Your task to perform on an android device: What is the news today? Image 0: 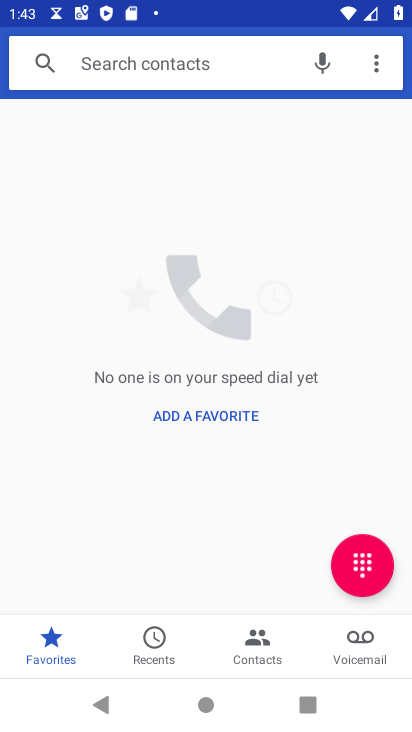
Step 0: press home button
Your task to perform on an android device: What is the news today? Image 1: 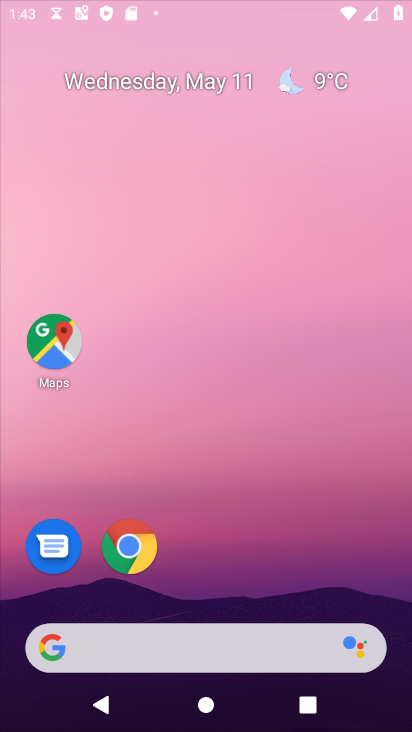
Step 1: drag from (297, 613) to (240, 25)
Your task to perform on an android device: What is the news today? Image 2: 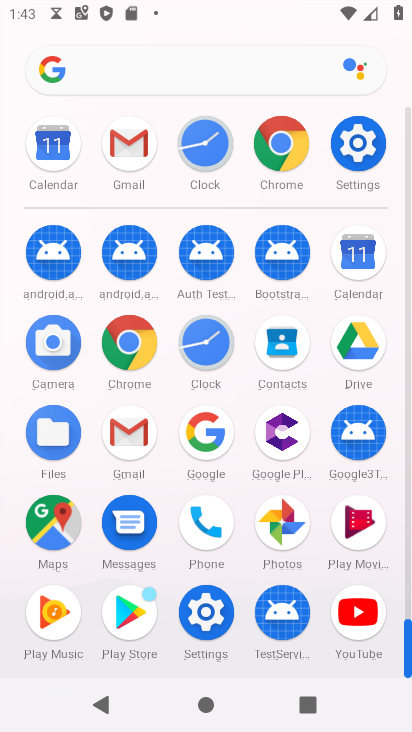
Step 2: click (135, 355)
Your task to perform on an android device: What is the news today? Image 3: 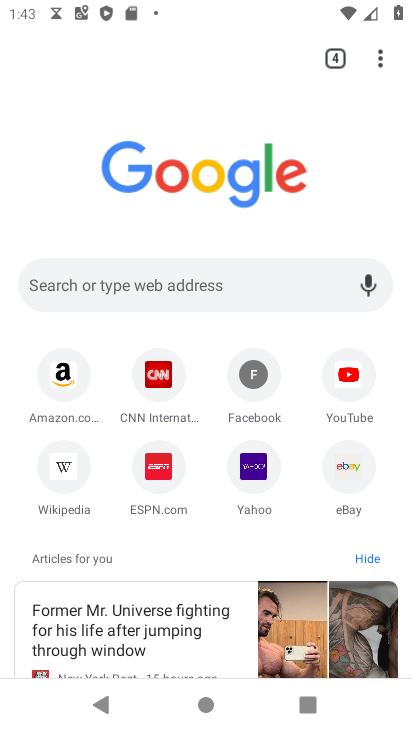
Step 3: click (217, 284)
Your task to perform on an android device: What is the news today? Image 4: 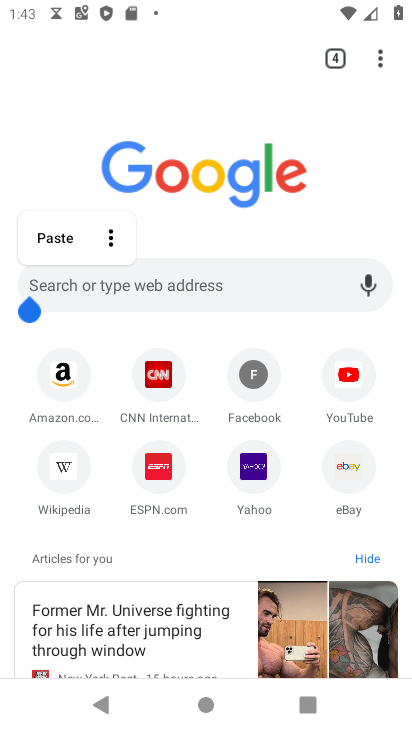
Step 4: click (217, 284)
Your task to perform on an android device: What is the news today? Image 5: 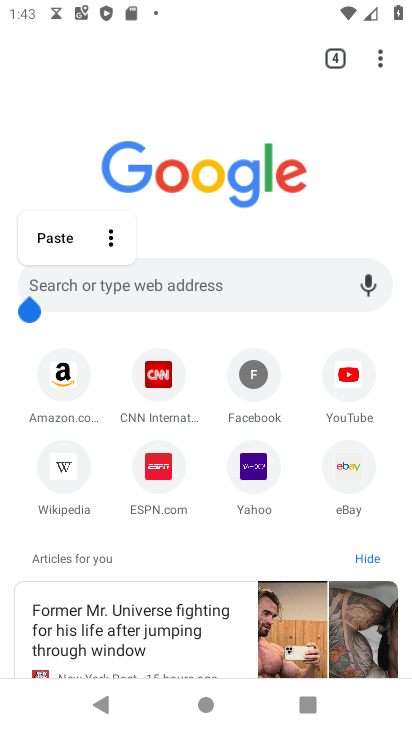
Step 5: click (217, 284)
Your task to perform on an android device: What is the news today? Image 6: 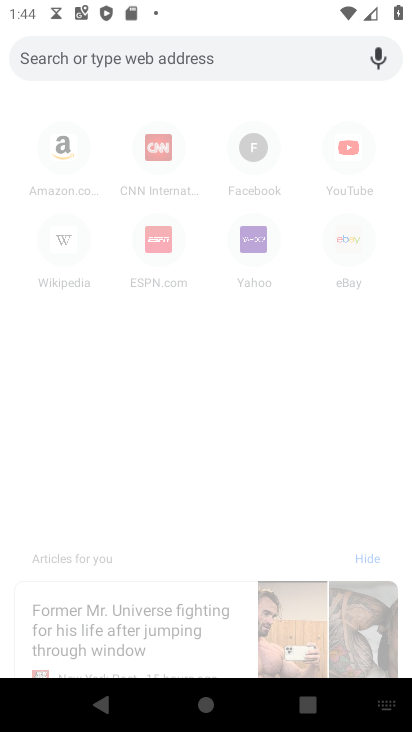
Step 6: type "news today"
Your task to perform on an android device: What is the news today? Image 7: 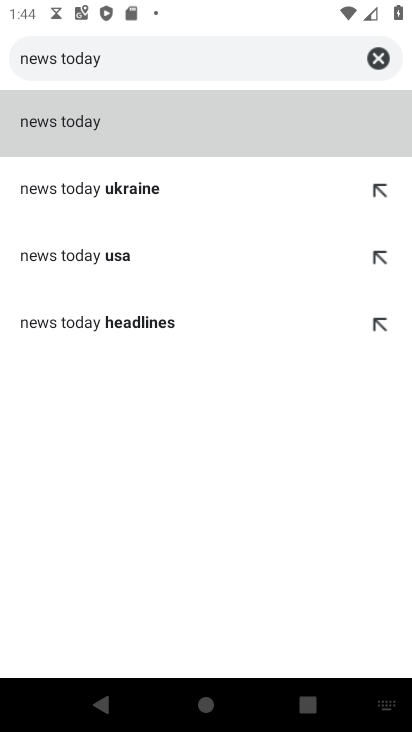
Step 7: click (107, 131)
Your task to perform on an android device: What is the news today? Image 8: 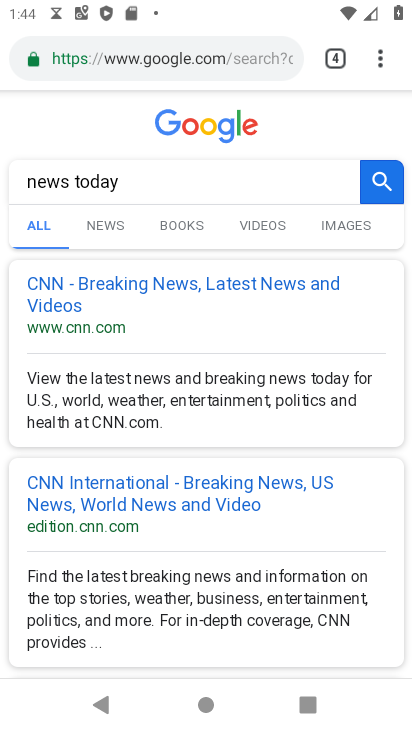
Step 8: task complete